Your task to perform on an android device: turn on location history Image 0: 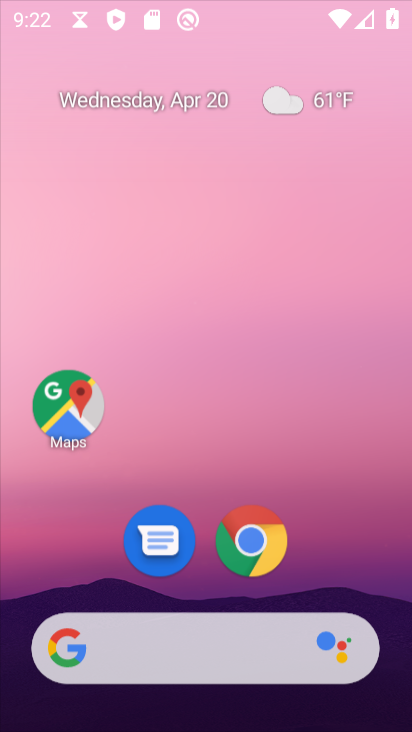
Step 0: drag from (163, 488) to (291, 302)
Your task to perform on an android device: turn on location history Image 1: 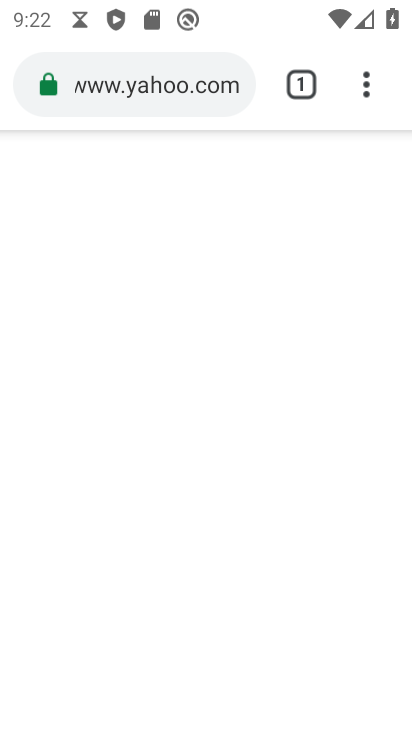
Step 1: press home button
Your task to perform on an android device: turn on location history Image 2: 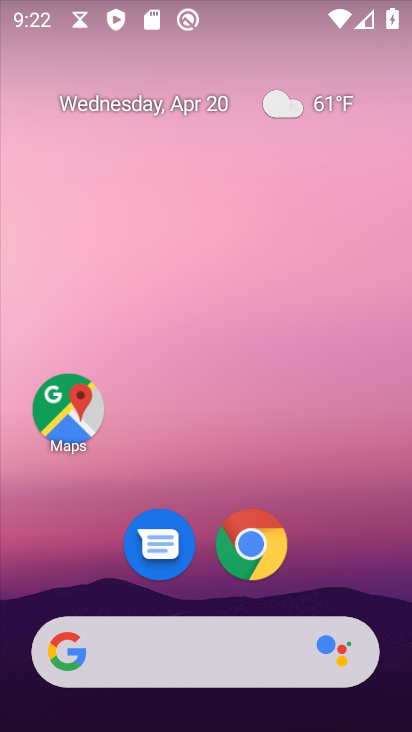
Step 2: drag from (164, 580) to (310, 98)
Your task to perform on an android device: turn on location history Image 3: 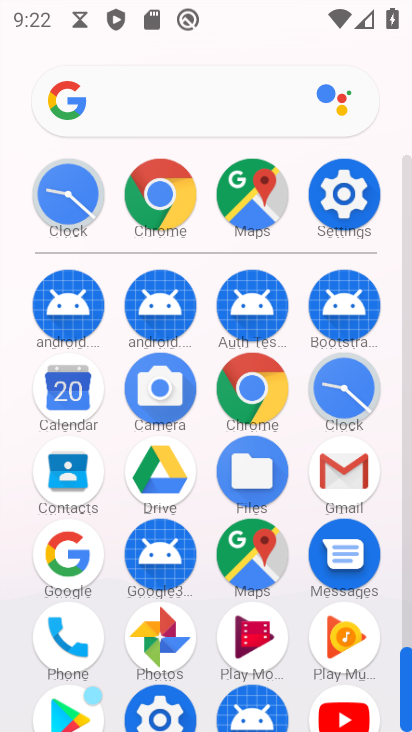
Step 3: click (333, 205)
Your task to perform on an android device: turn on location history Image 4: 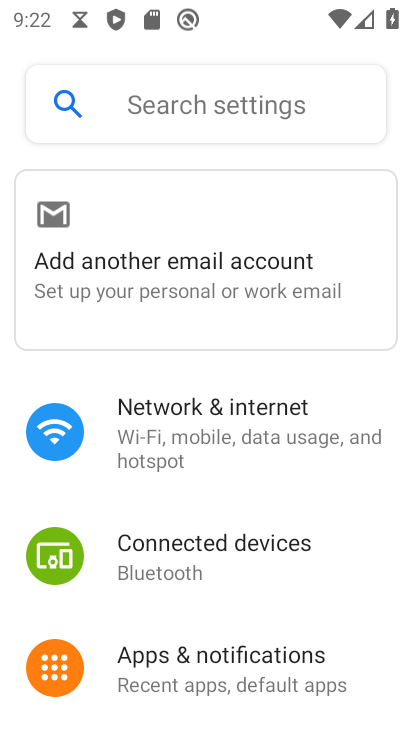
Step 4: drag from (174, 626) to (353, 107)
Your task to perform on an android device: turn on location history Image 5: 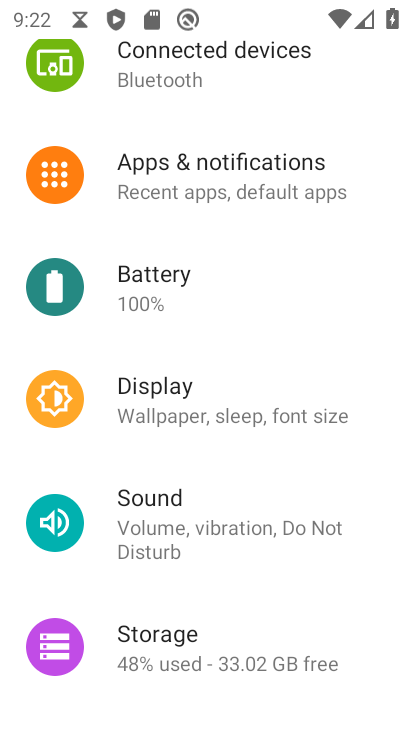
Step 5: drag from (192, 620) to (390, 92)
Your task to perform on an android device: turn on location history Image 6: 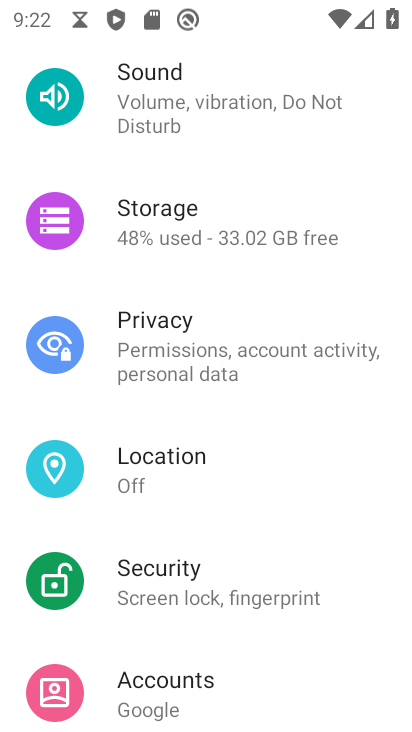
Step 6: click (168, 460)
Your task to perform on an android device: turn on location history Image 7: 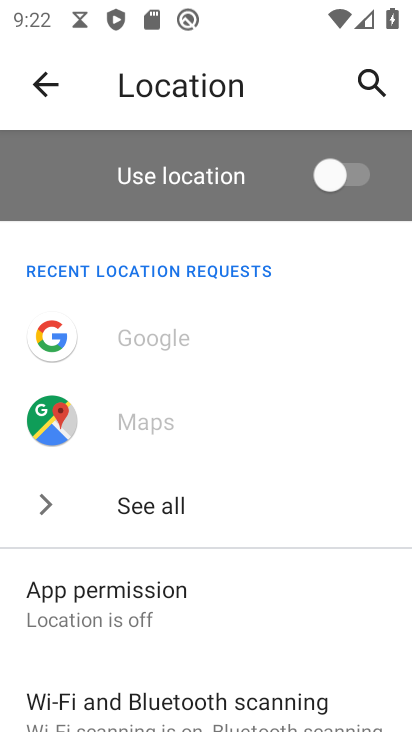
Step 7: drag from (126, 668) to (313, 119)
Your task to perform on an android device: turn on location history Image 8: 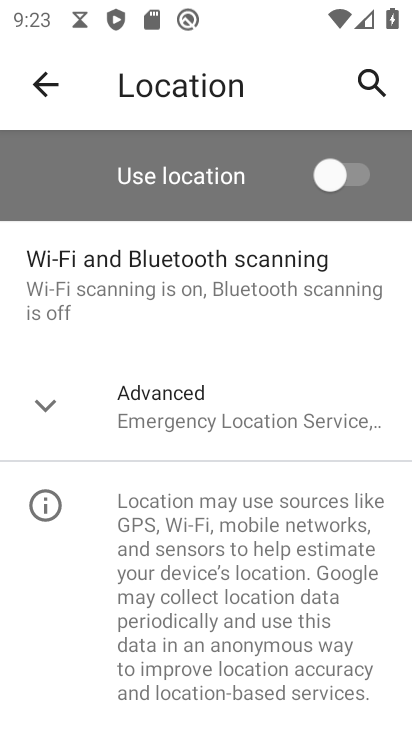
Step 8: click (134, 421)
Your task to perform on an android device: turn on location history Image 9: 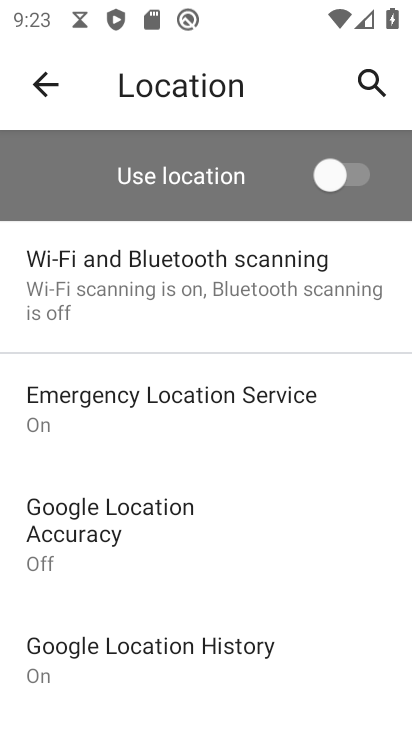
Step 9: drag from (145, 602) to (302, 303)
Your task to perform on an android device: turn on location history Image 10: 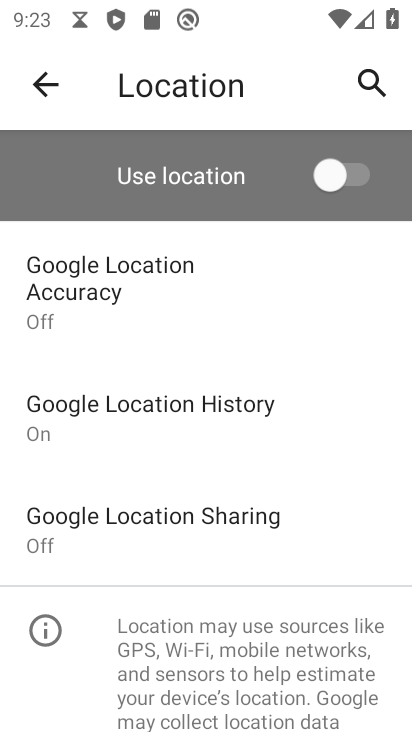
Step 10: click (173, 399)
Your task to perform on an android device: turn on location history Image 11: 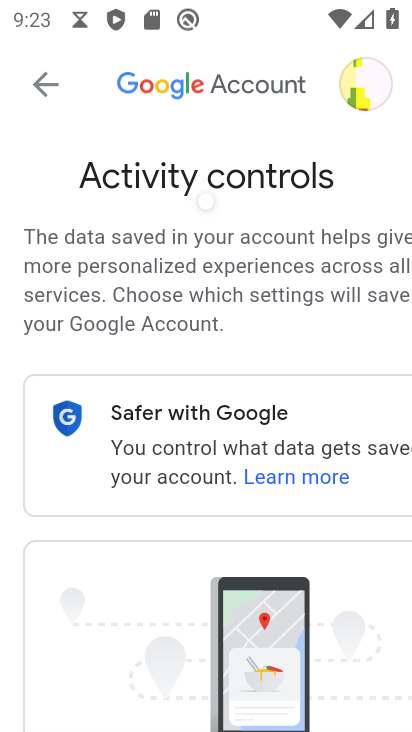
Step 11: task complete